Your task to perform on an android device: turn off improve location accuracy Image 0: 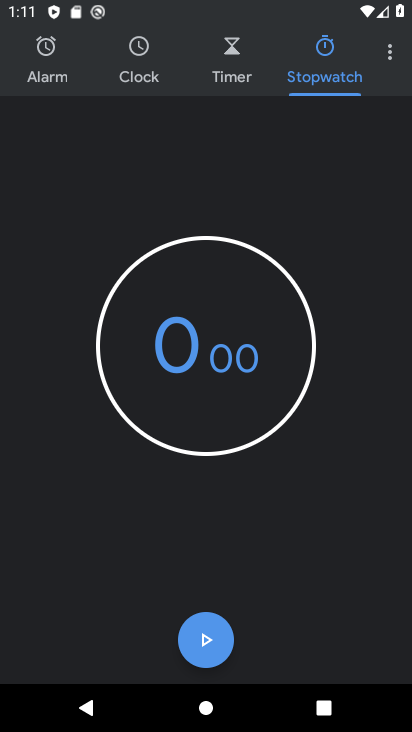
Step 0: press home button
Your task to perform on an android device: turn off improve location accuracy Image 1: 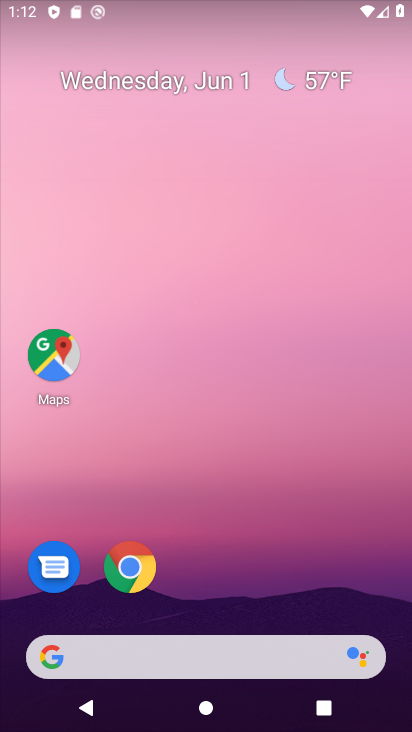
Step 1: drag from (355, 601) to (328, 178)
Your task to perform on an android device: turn off improve location accuracy Image 2: 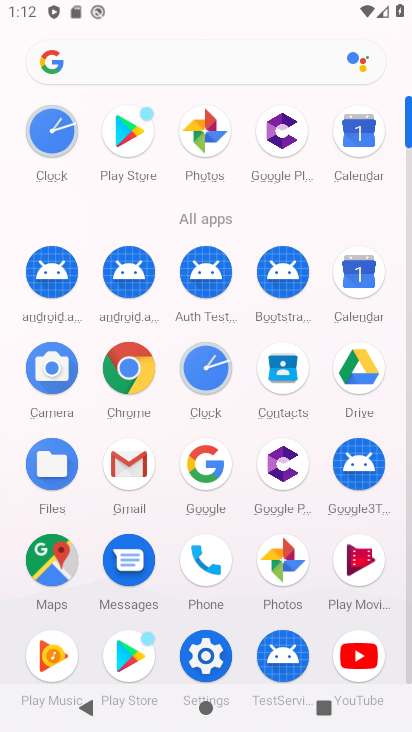
Step 2: click (225, 647)
Your task to perform on an android device: turn off improve location accuracy Image 3: 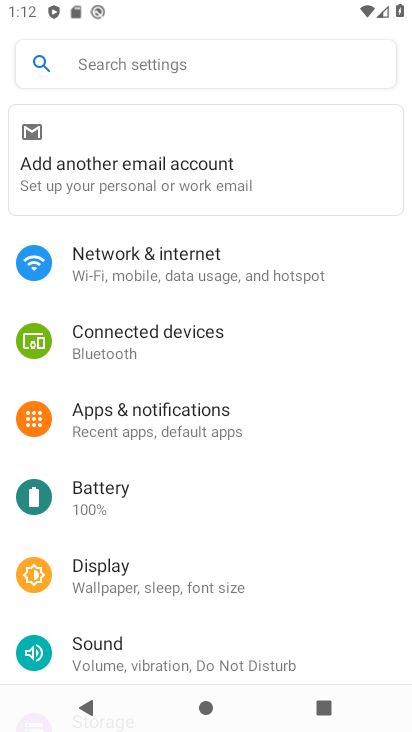
Step 3: drag from (268, 585) to (230, 336)
Your task to perform on an android device: turn off improve location accuracy Image 4: 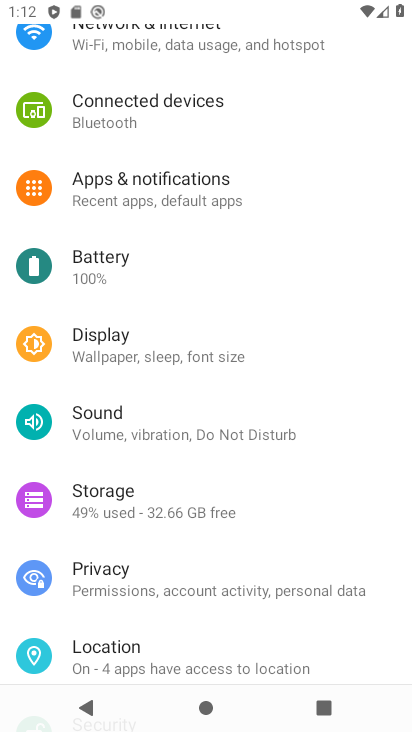
Step 4: click (190, 641)
Your task to perform on an android device: turn off improve location accuracy Image 5: 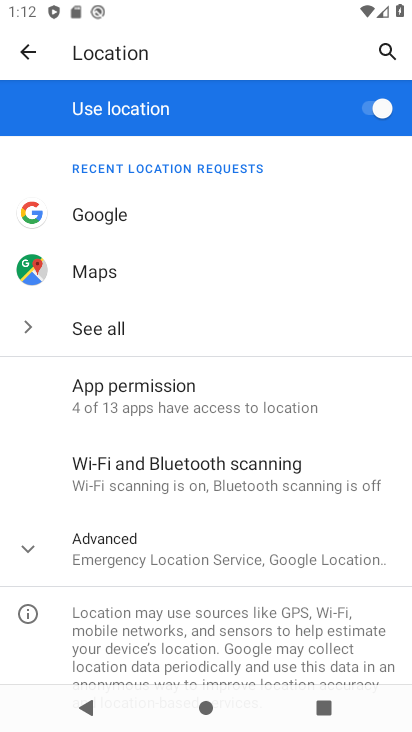
Step 5: click (200, 555)
Your task to perform on an android device: turn off improve location accuracy Image 6: 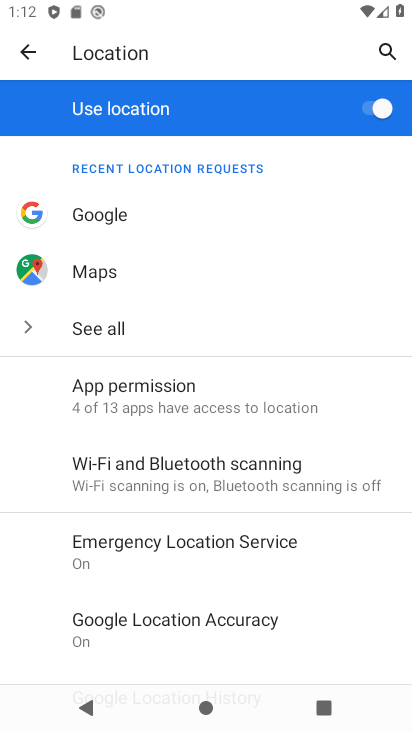
Step 6: click (241, 636)
Your task to perform on an android device: turn off improve location accuracy Image 7: 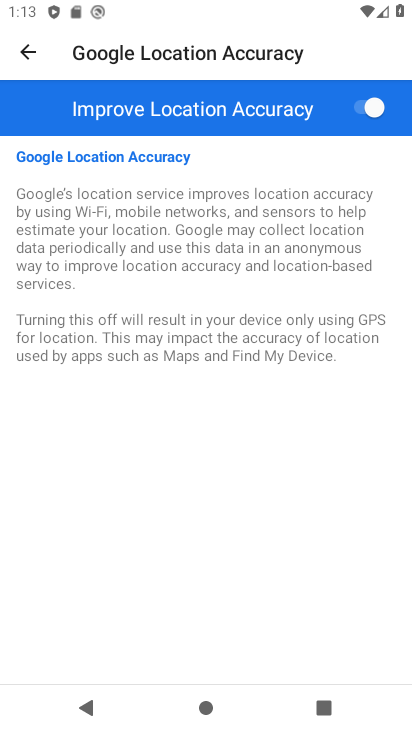
Step 7: click (370, 112)
Your task to perform on an android device: turn off improve location accuracy Image 8: 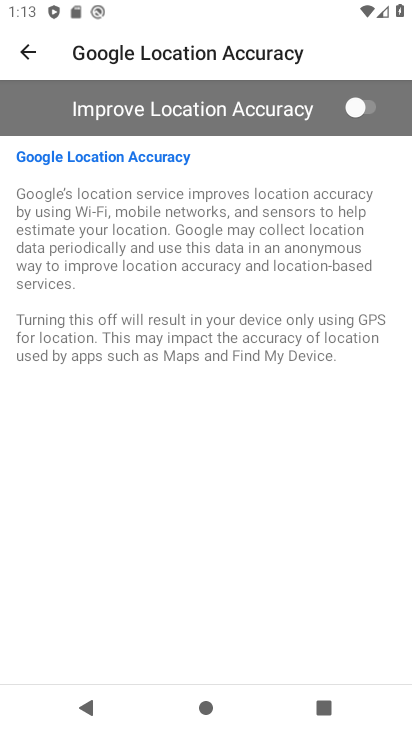
Step 8: task complete